Your task to perform on an android device: Open display settings Image 0: 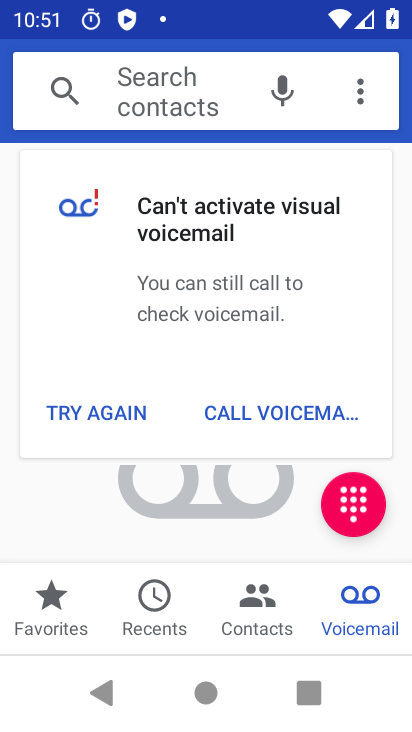
Step 0: press home button
Your task to perform on an android device: Open display settings Image 1: 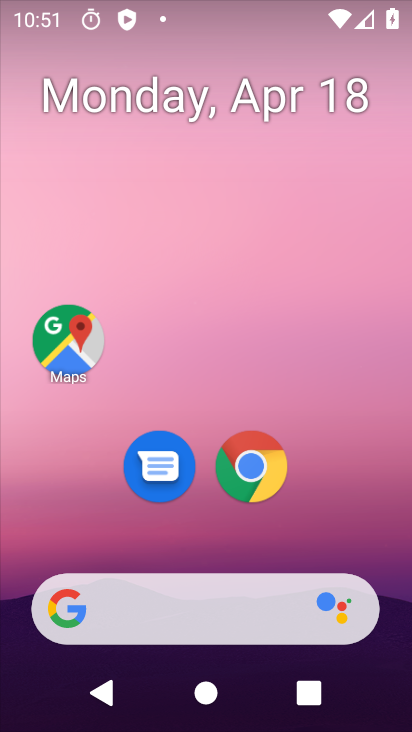
Step 1: drag from (247, 576) to (240, 279)
Your task to perform on an android device: Open display settings Image 2: 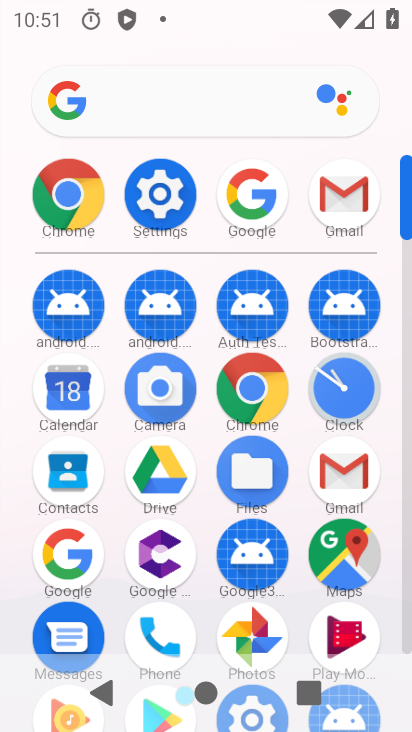
Step 2: click (171, 214)
Your task to perform on an android device: Open display settings Image 3: 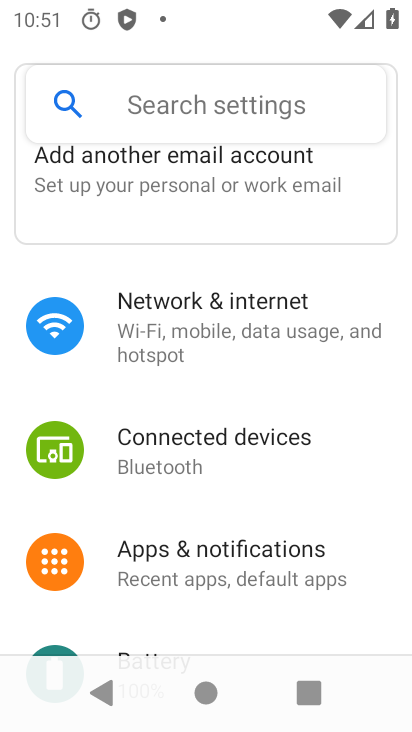
Step 3: drag from (210, 568) to (218, 324)
Your task to perform on an android device: Open display settings Image 4: 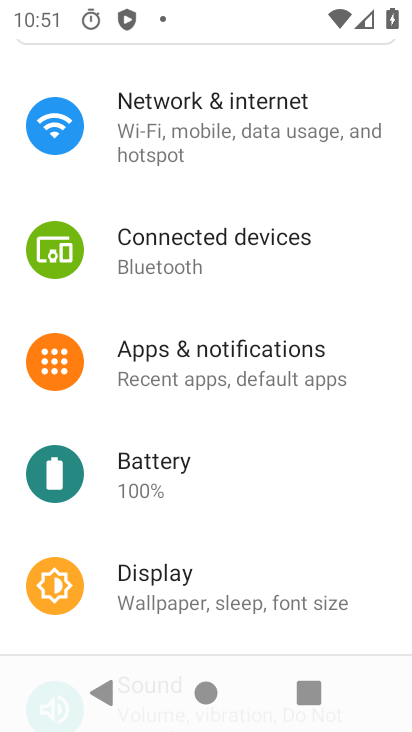
Step 4: click (220, 586)
Your task to perform on an android device: Open display settings Image 5: 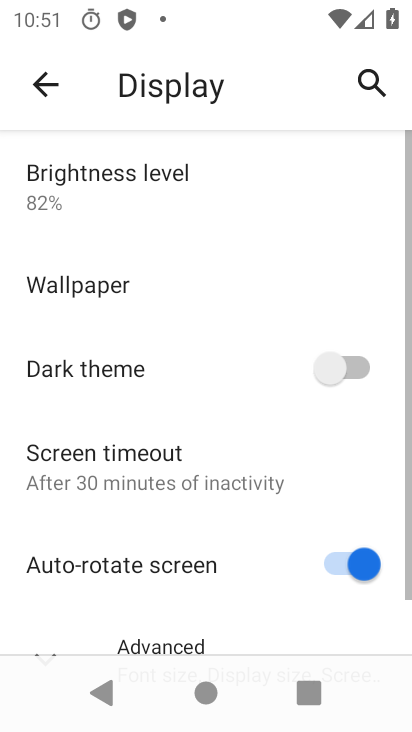
Step 5: drag from (220, 586) to (207, 349)
Your task to perform on an android device: Open display settings Image 6: 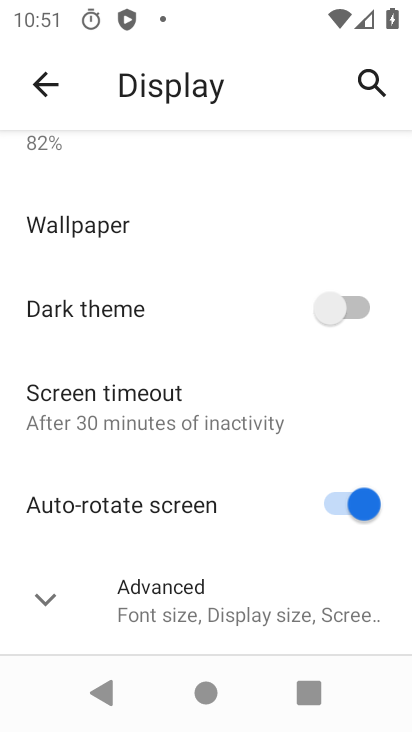
Step 6: click (199, 621)
Your task to perform on an android device: Open display settings Image 7: 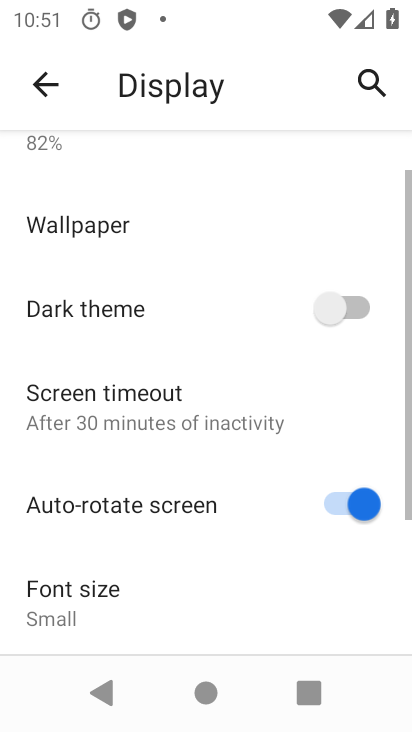
Step 7: task complete